Your task to perform on an android device: Open Google Maps and go to "Timeline" Image 0: 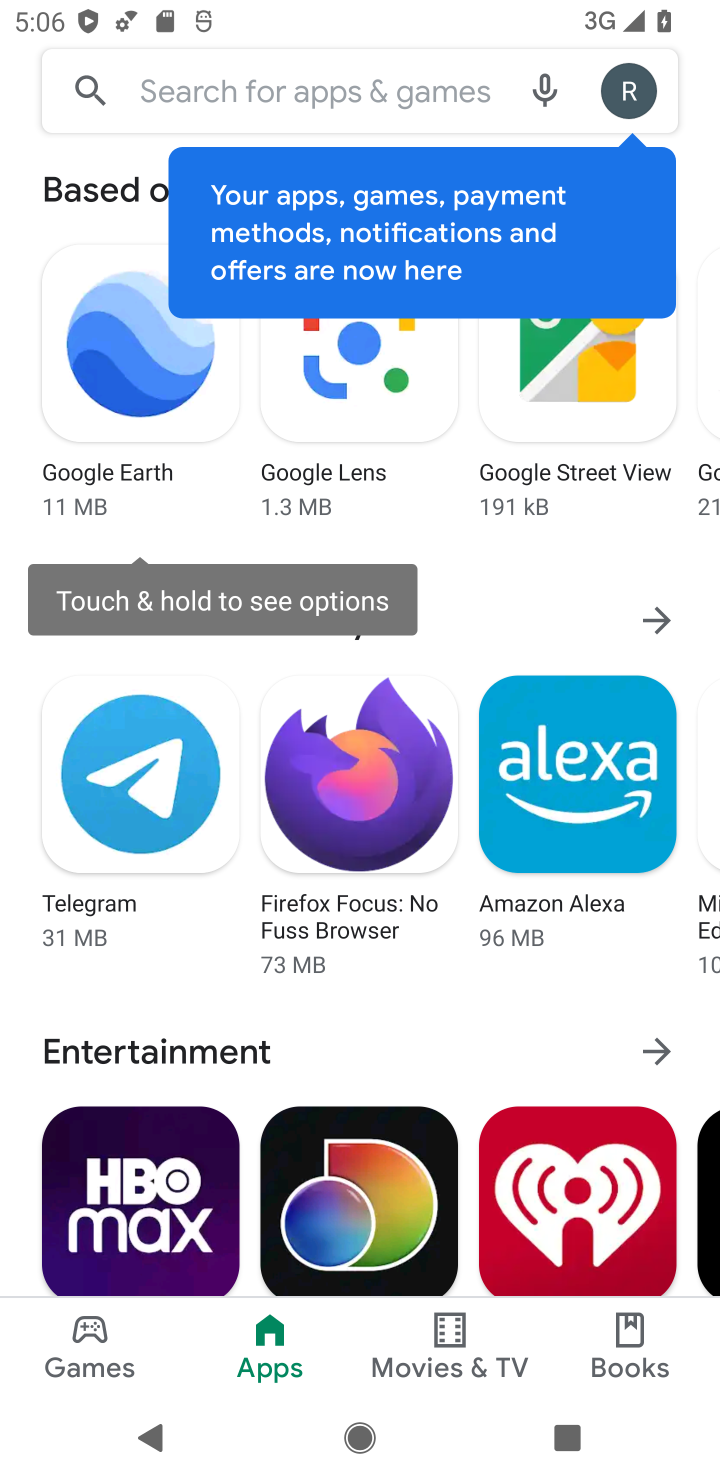
Step 0: press home button
Your task to perform on an android device: Open Google Maps and go to "Timeline" Image 1: 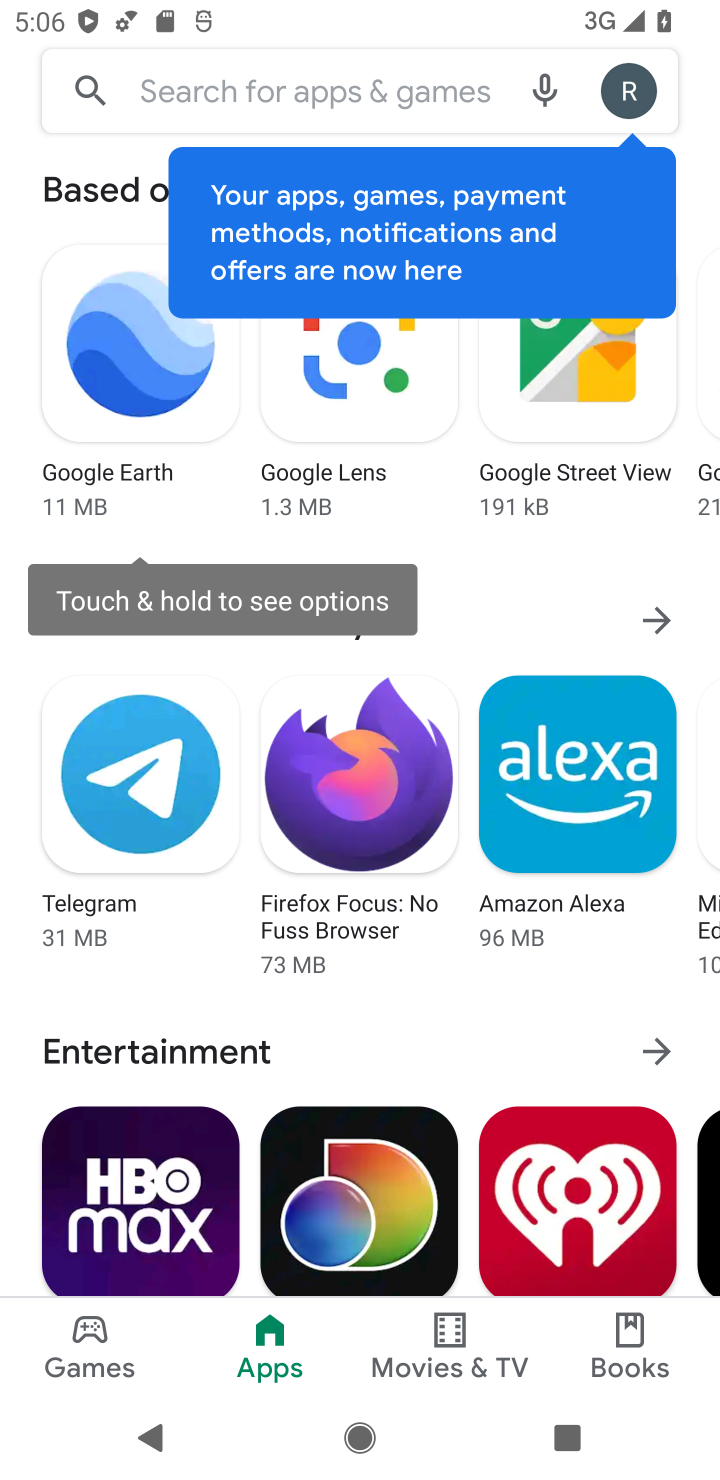
Step 1: press home button
Your task to perform on an android device: Open Google Maps and go to "Timeline" Image 2: 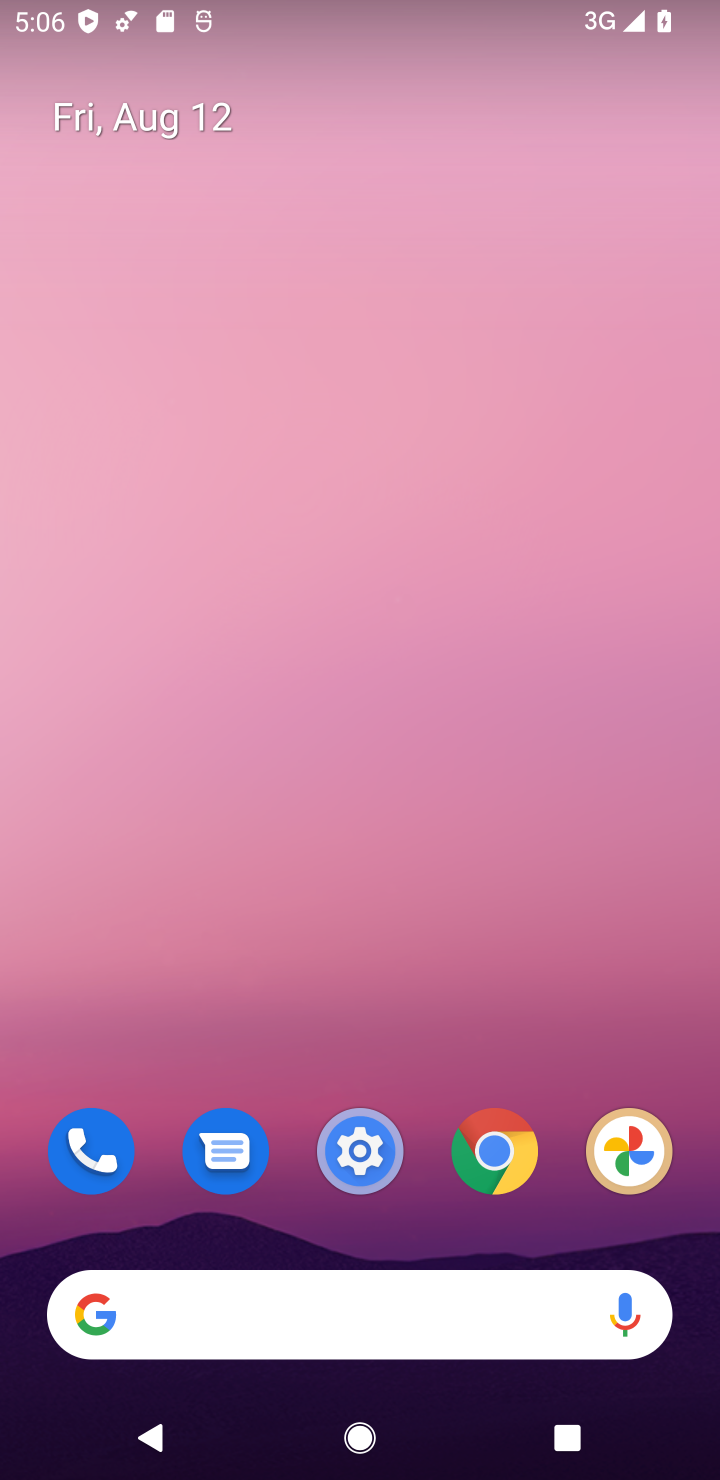
Step 2: drag from (431, 993) to (521, 45)
Your task to perform on an android device: Open Google Maps and go to "Timeline" Image 3: 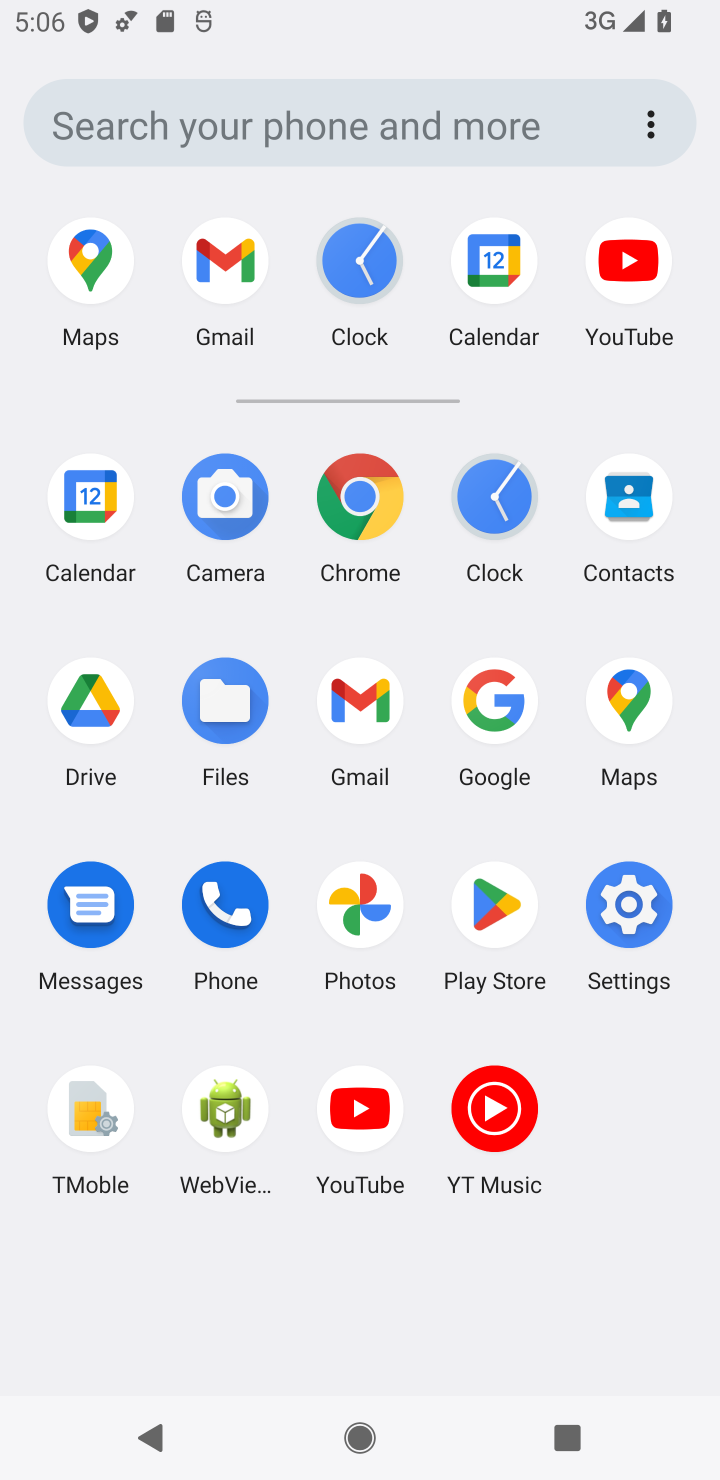
Step 3: click (647, 694)
Your task to perform on an android device: Open Google Maps and go to "Timeline" Image 4: 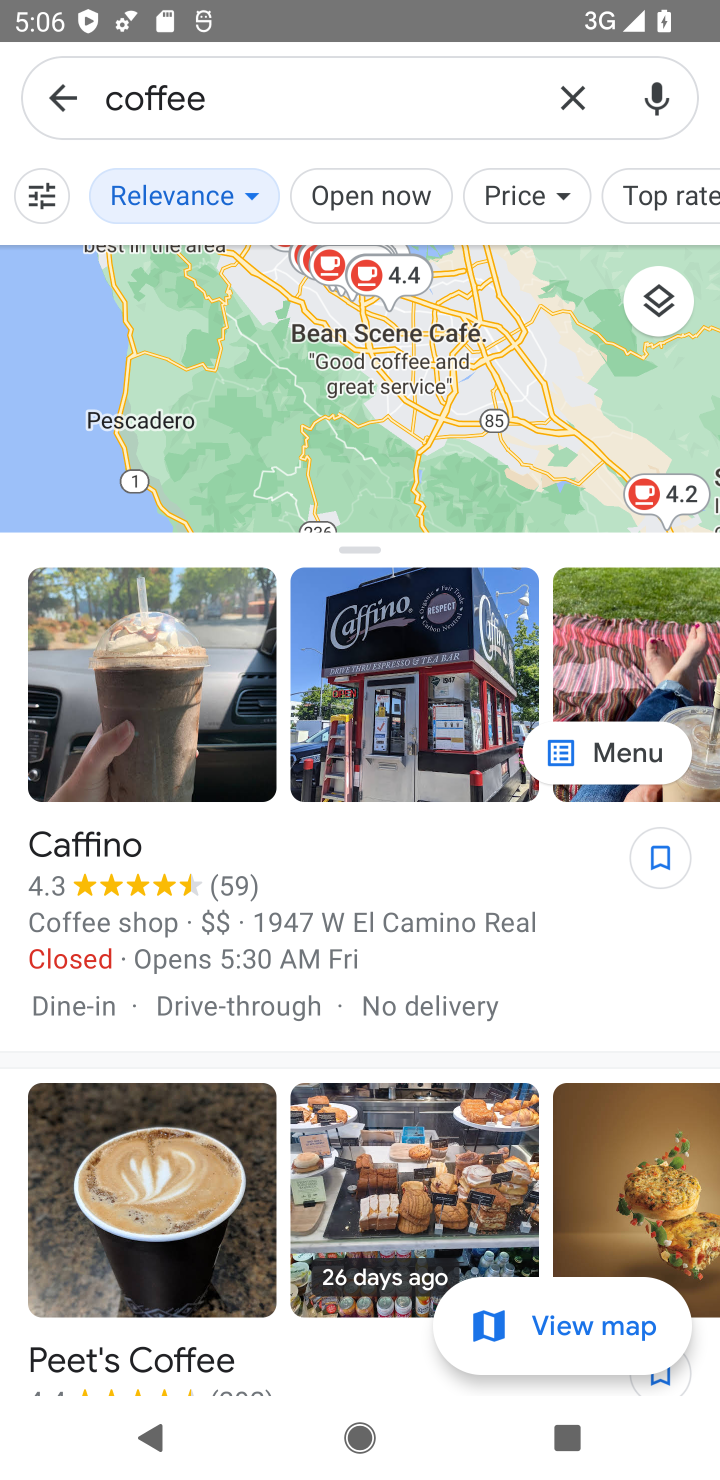
Step 4: click (80, 93)
Your task to perform on an android device: Open Google Maps and go to "Timeline" Image 5: 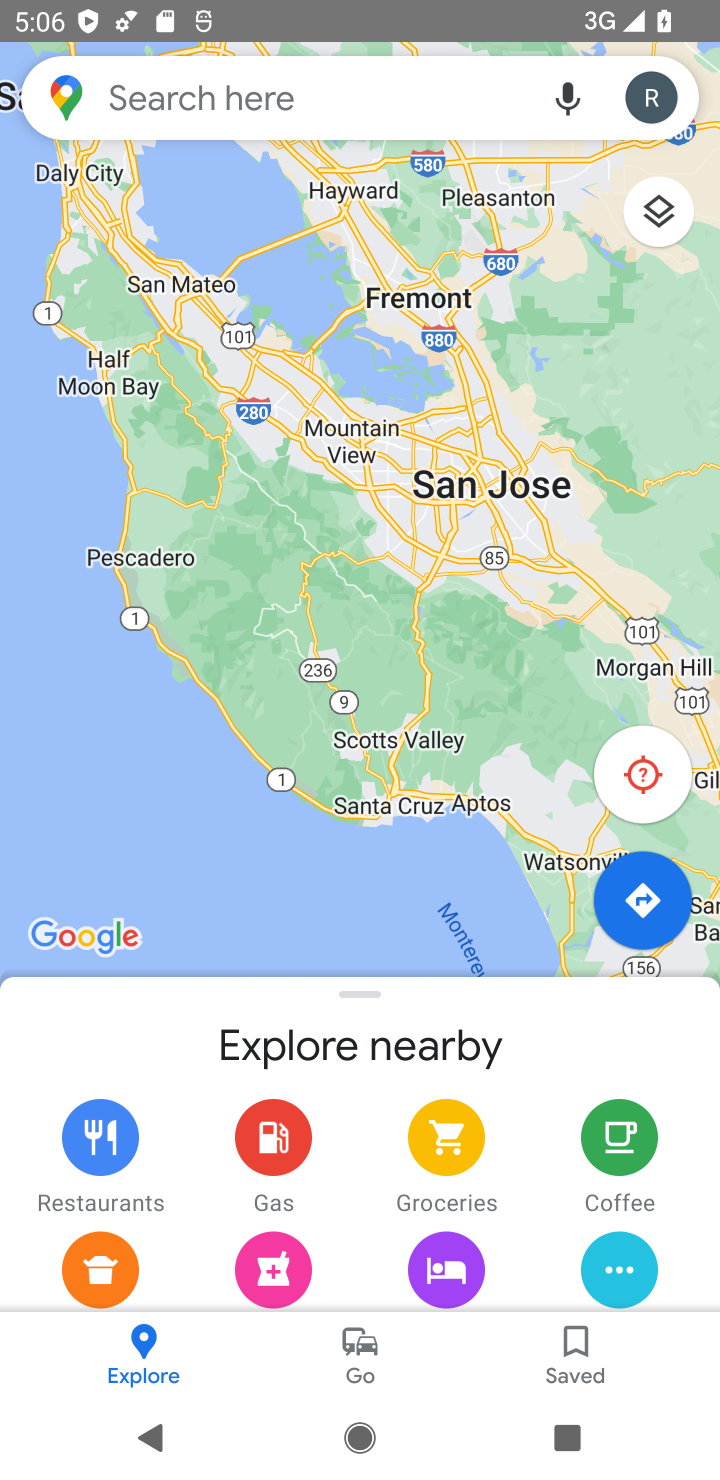
Step 5: click (661, 91)
Your task to perform on an android device: Open Google Maps and go to "Timeline" Image 6: 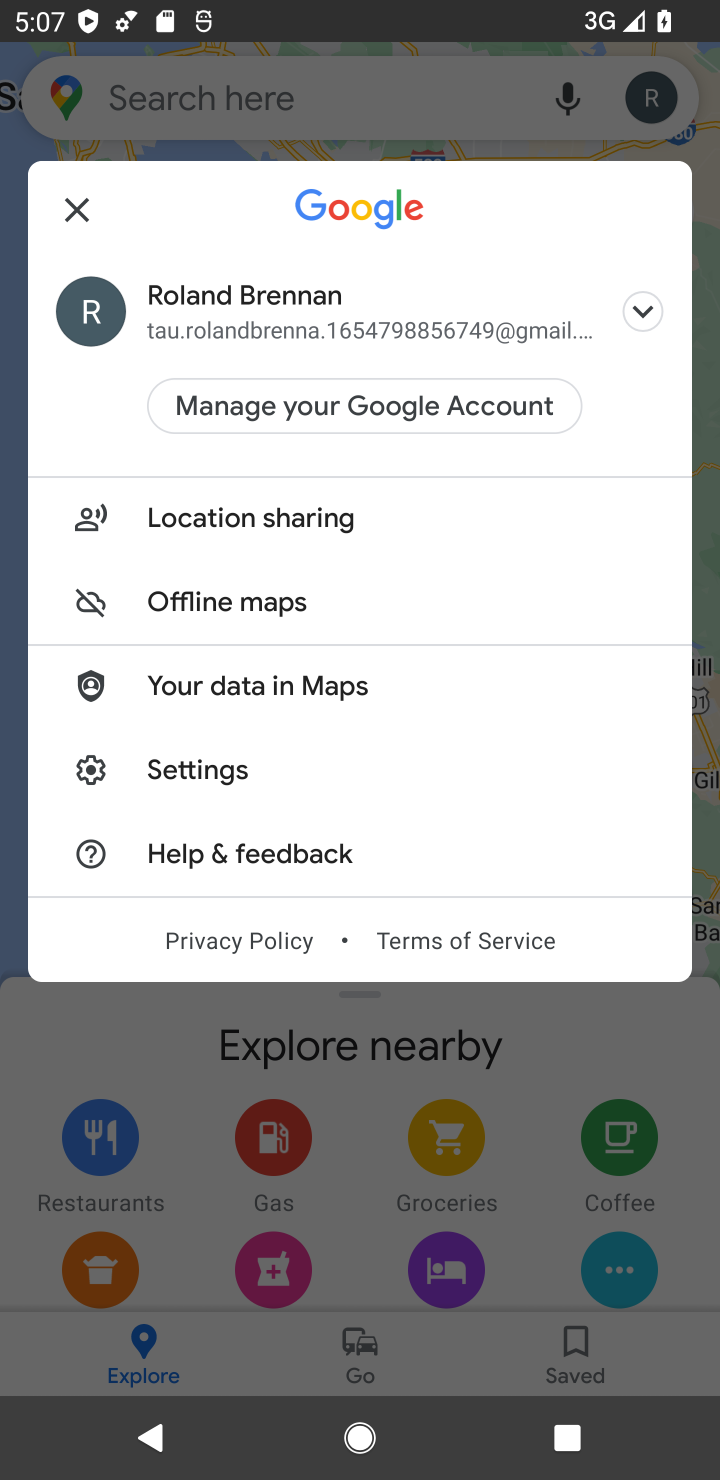
Step 6: click (459, 1146)
Your task to perform on an android device: Open Google Maps and go to "Timeline" Image 7: 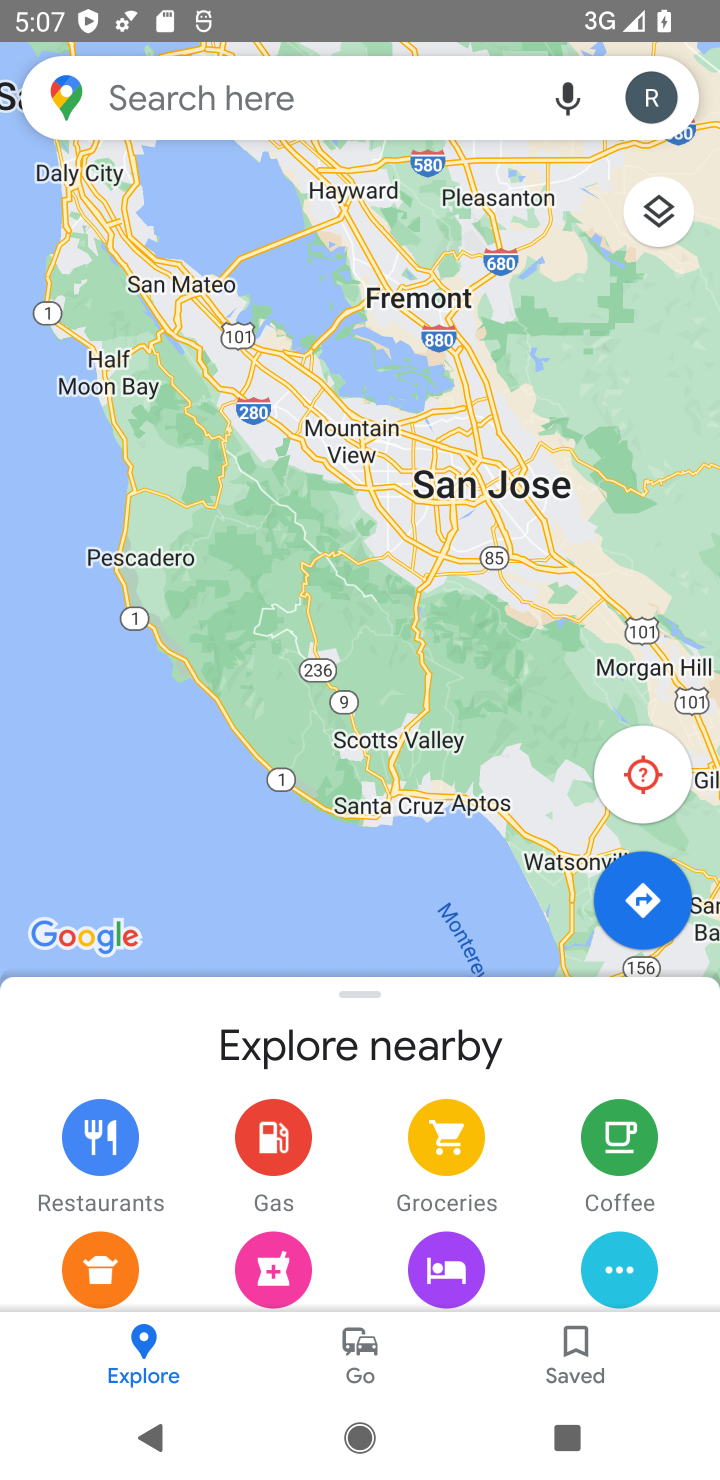
Step 7: click (81, 77)
Your task to perform on an android device: Open Google Maps and go to "Timeline" Image 8: 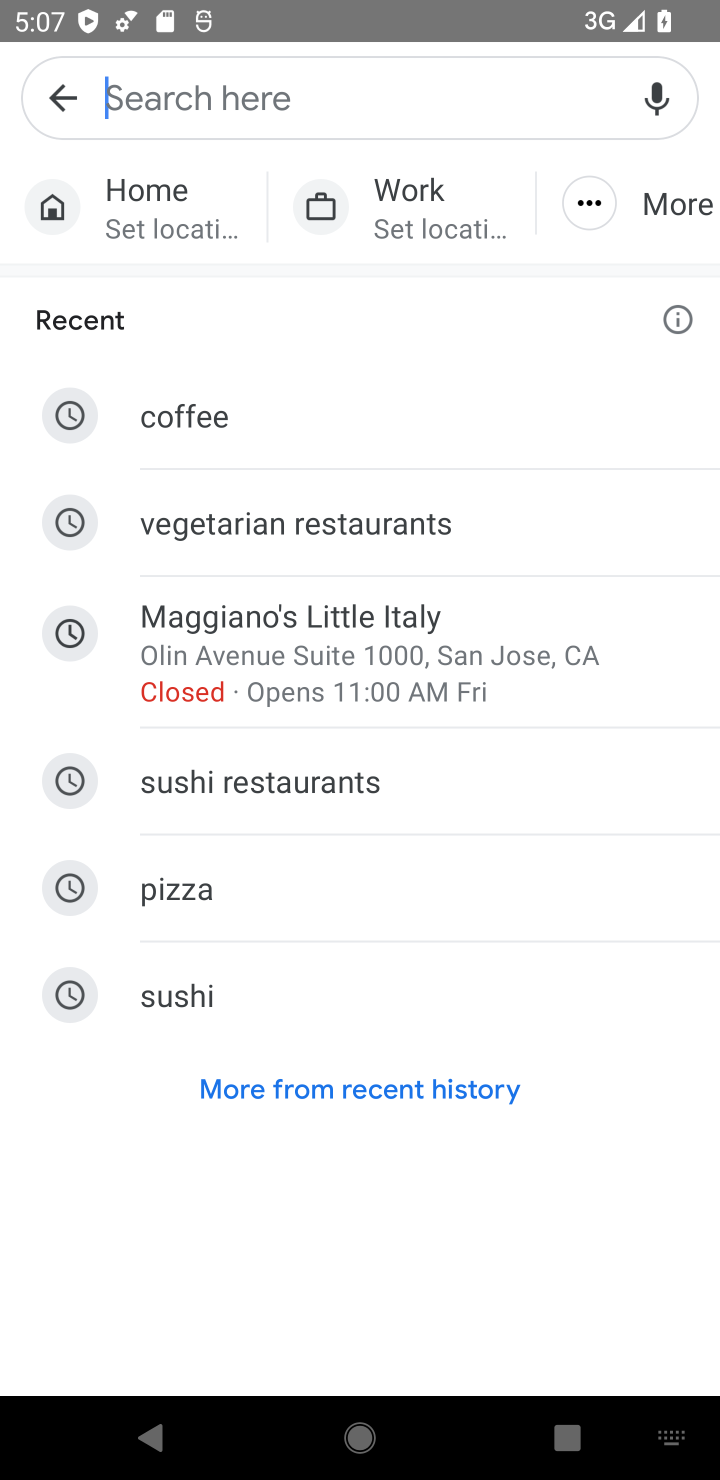
Step 8: click (72, 108)
Your task to perform on an android device: Open Google Maps and go to "Timeline" Image 9: 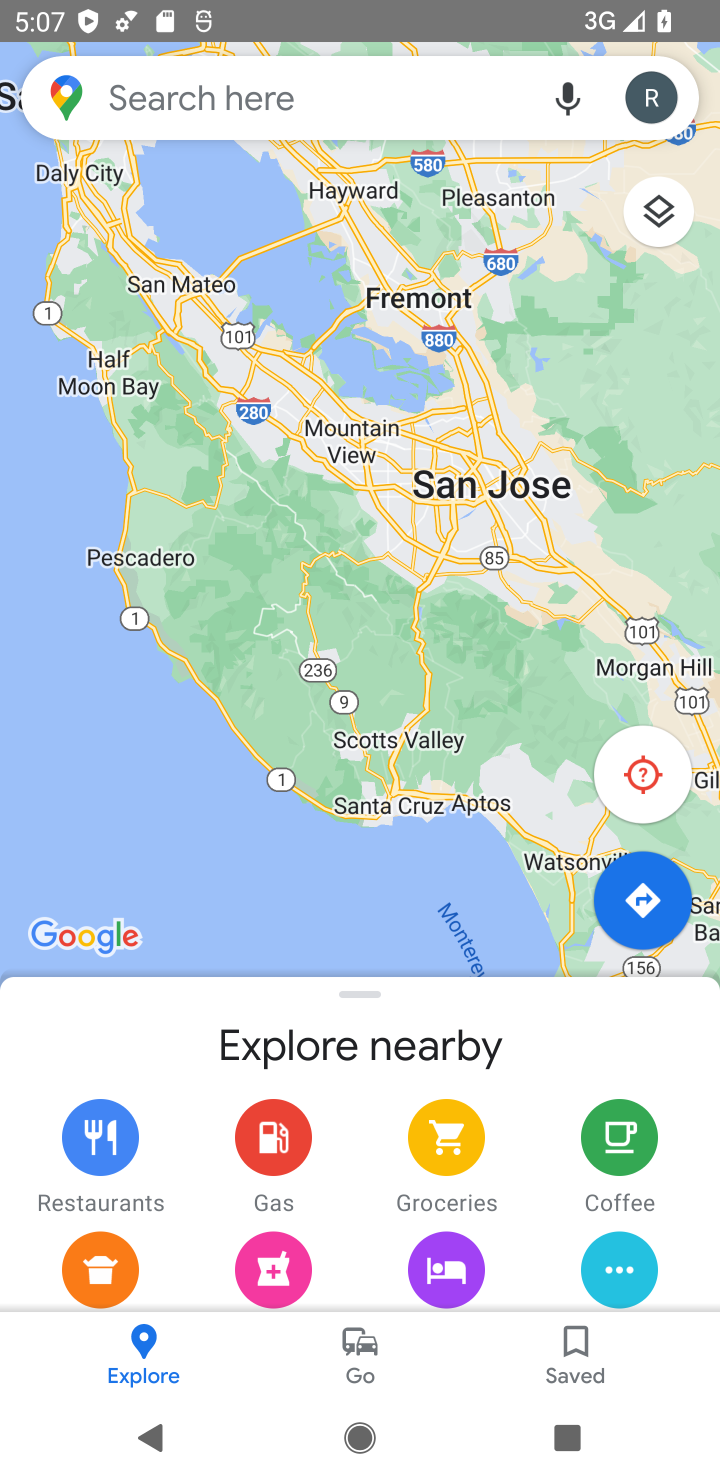
Step 9: click (649, 100)
Your task to perform on an android device: Open Google Maps and go to "Timeline" Image 10: 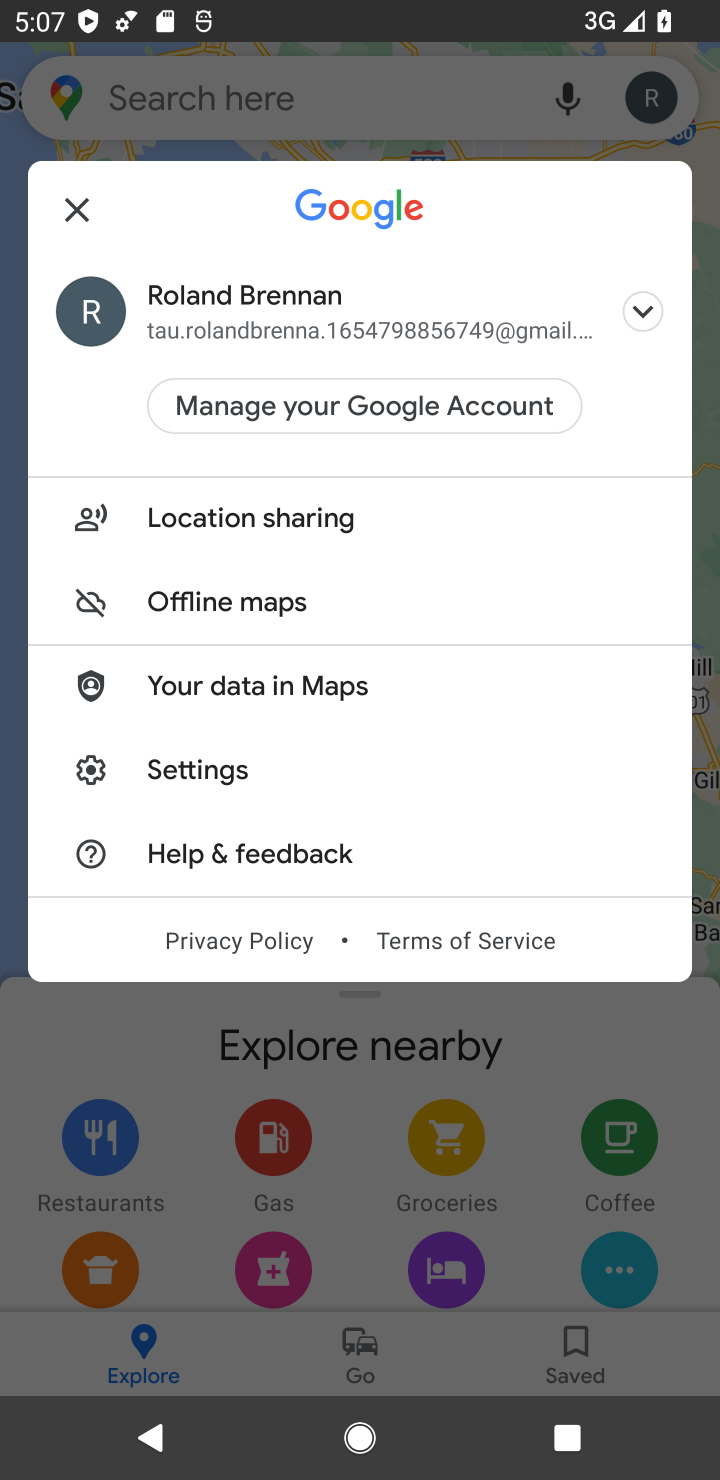
Step 10: task complete